Your task to perform on an android device: open app "Google Calendar" (install if not already installed) Image 0: 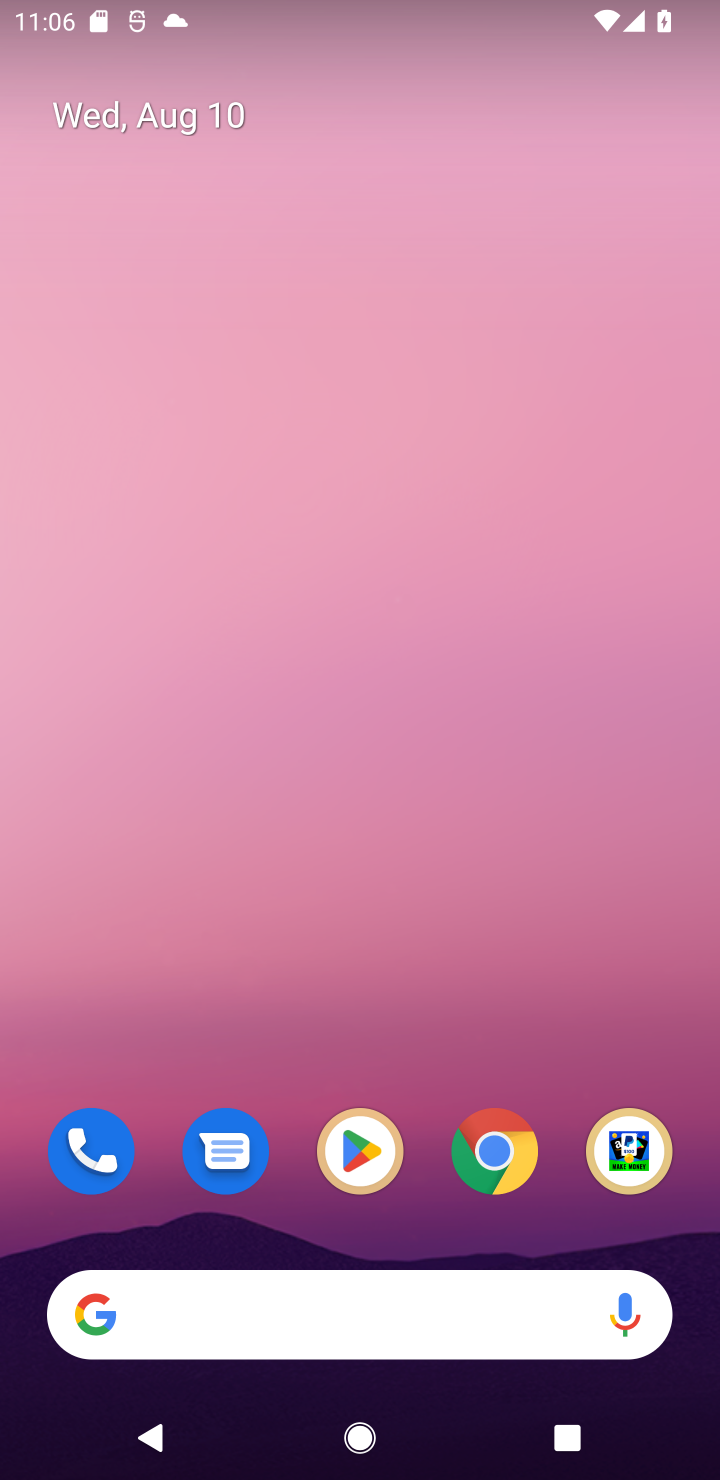
Step 0: press home button
Your task to perform on an android device: open app "Google Calendar" (install if not already installed) Image 1: 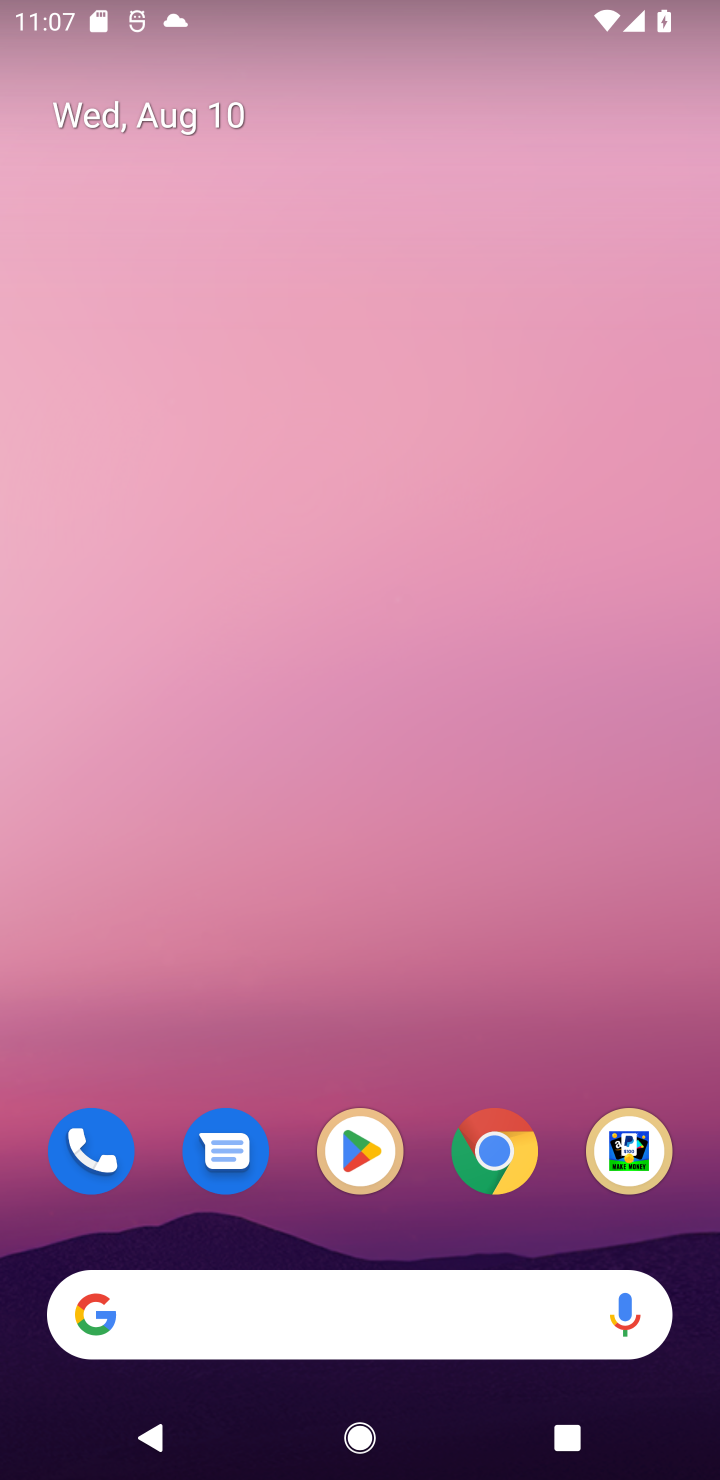
Step 1: drag from (433, 1091) to (423, 171)
Your task to perform on an android device: open app "Google Calendar" (install if not already installed) Image 2: 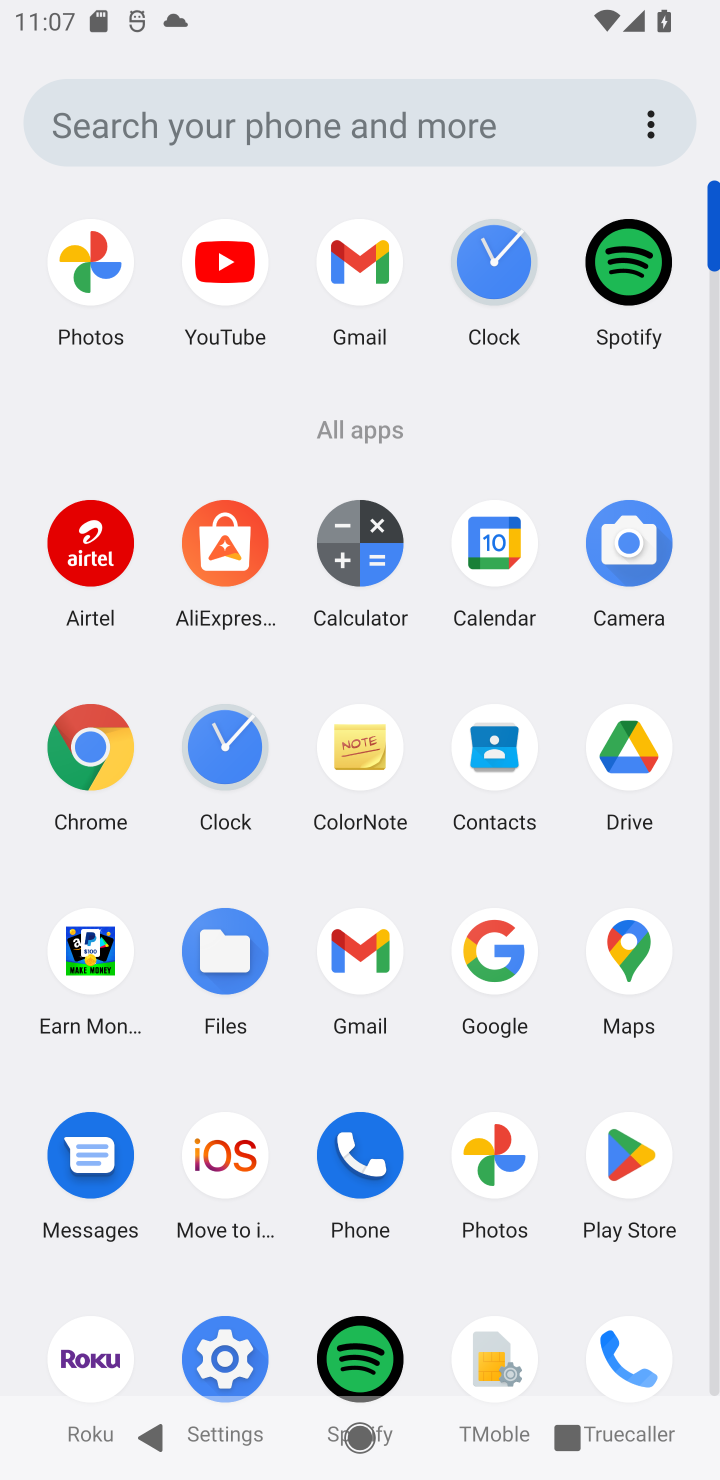
Step 2: click (618, 1147)
Your task to perform on an android device: open app "Google Calendar" (install if not already installed) Image 3: 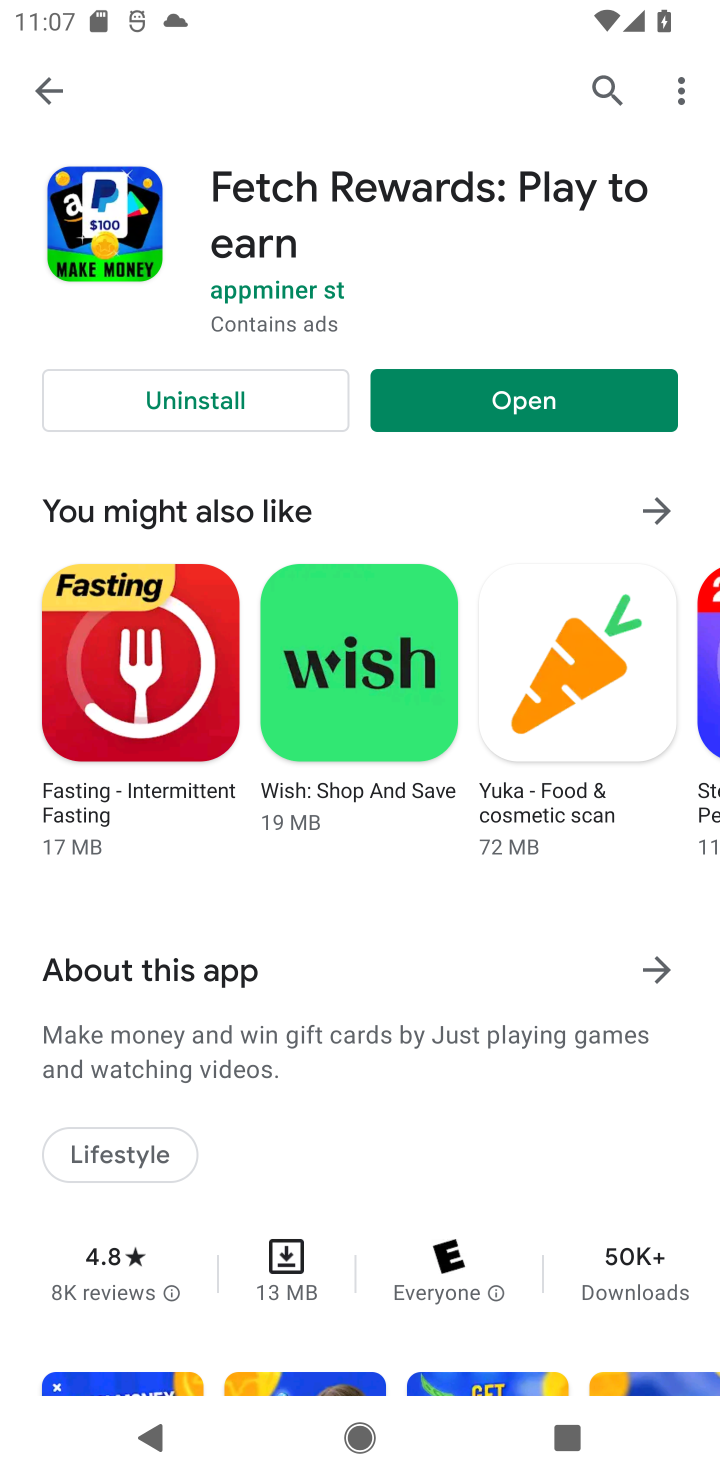
Step 3: click (608, 81)
Your task to perform on an android device: open app "Google Calendar" (install if not already installed) Image 4: 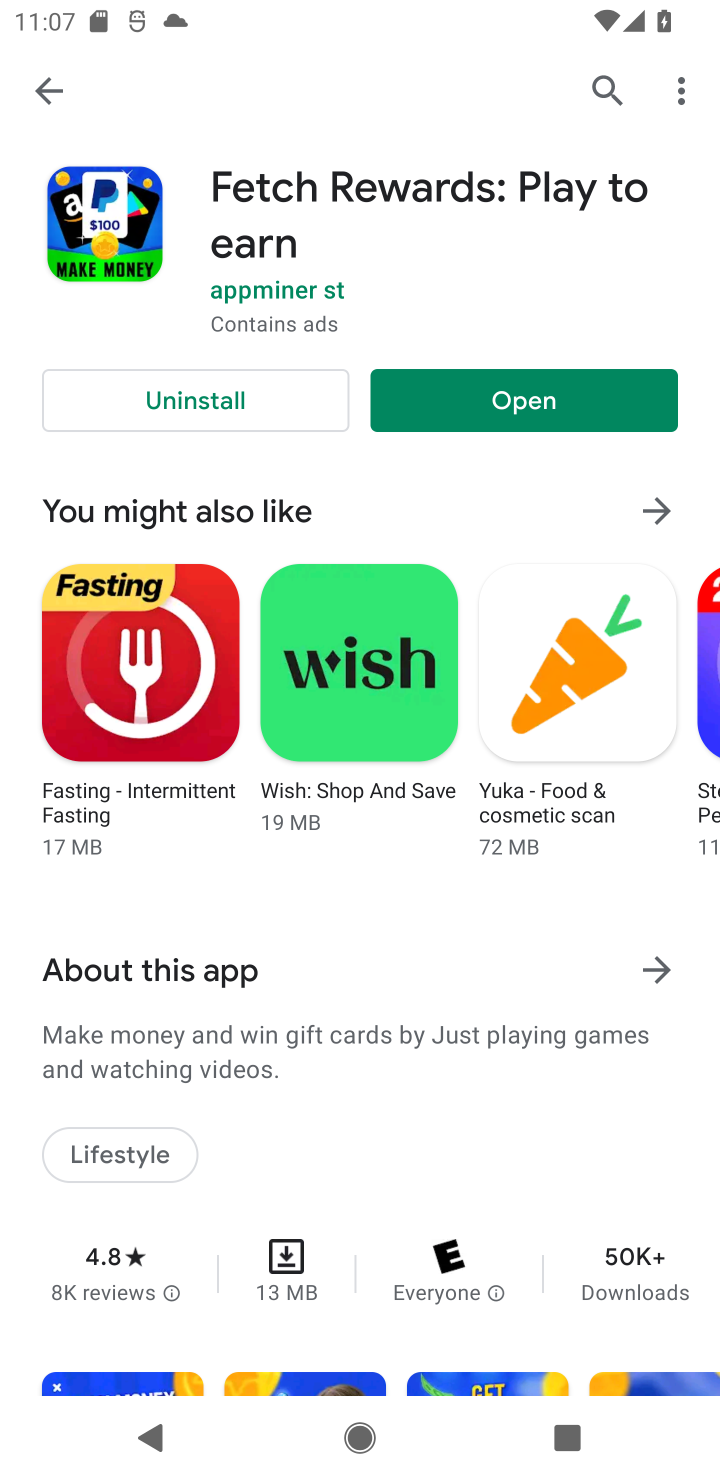
Step 4: click (603, 82)
Your task to perform on an android device: open app "Google Calendar" (install if not already installed) Image 5: 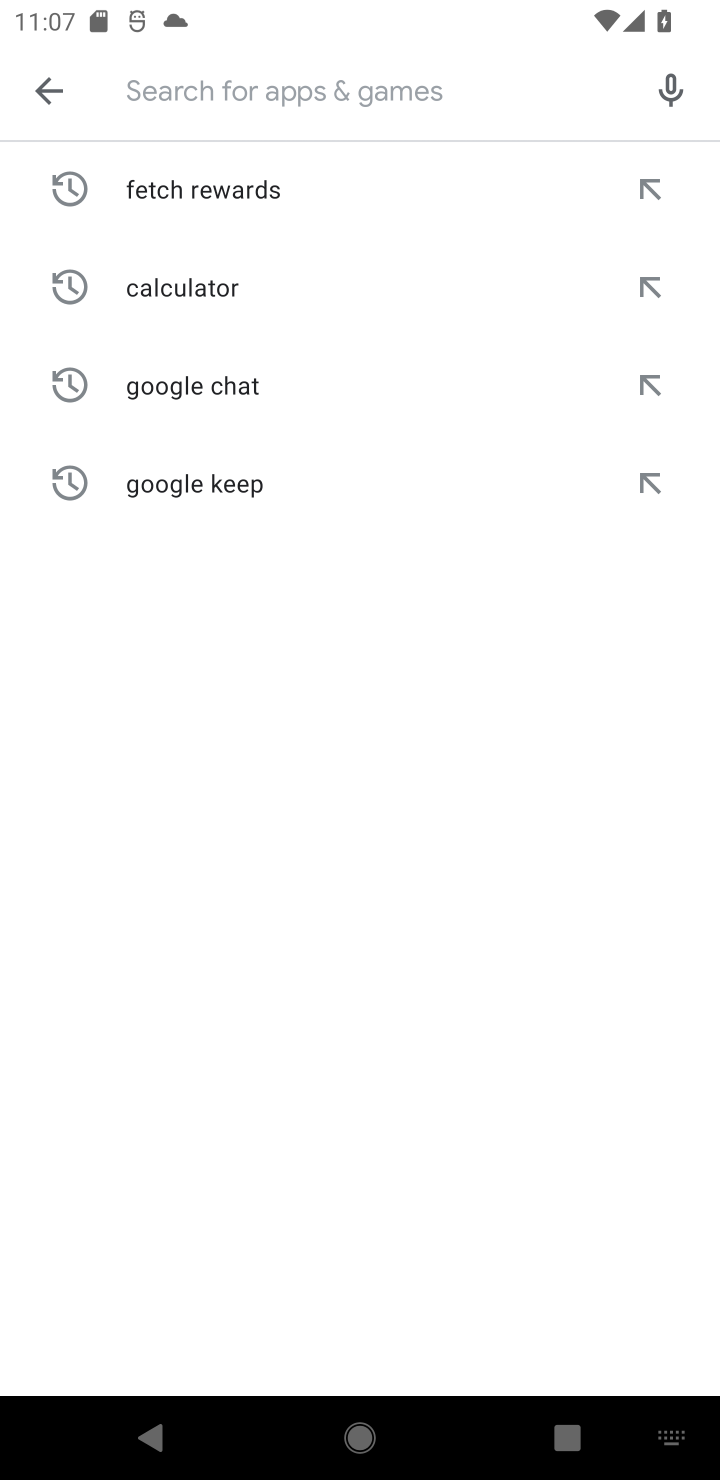
Step 5: type "Google Calendar"
Your task to perform on an android device: open app "Google Calendar" (install if not already installed) Image 6: 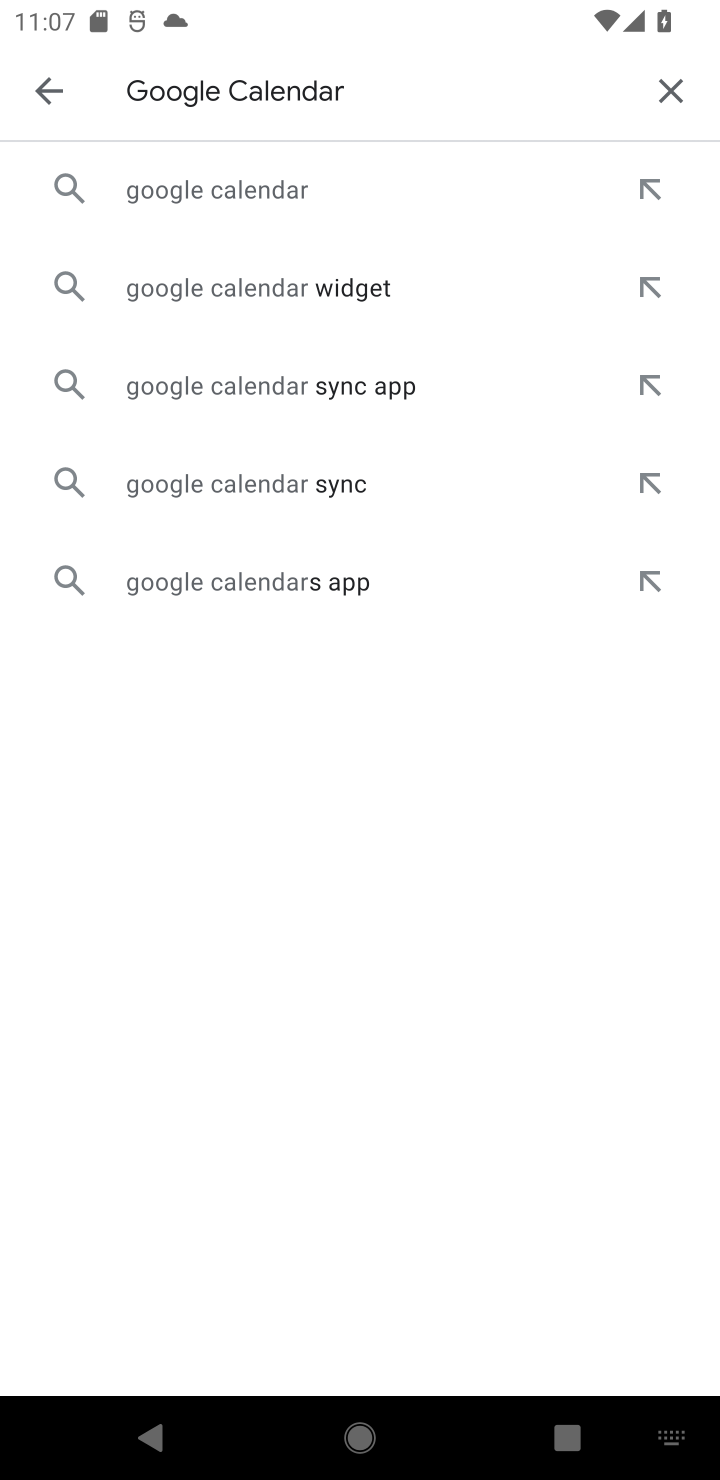
Step 6: click (299, 174)
Your task to perform on an android device: open app "Google Calendar" (install if not already installed) Image 7: 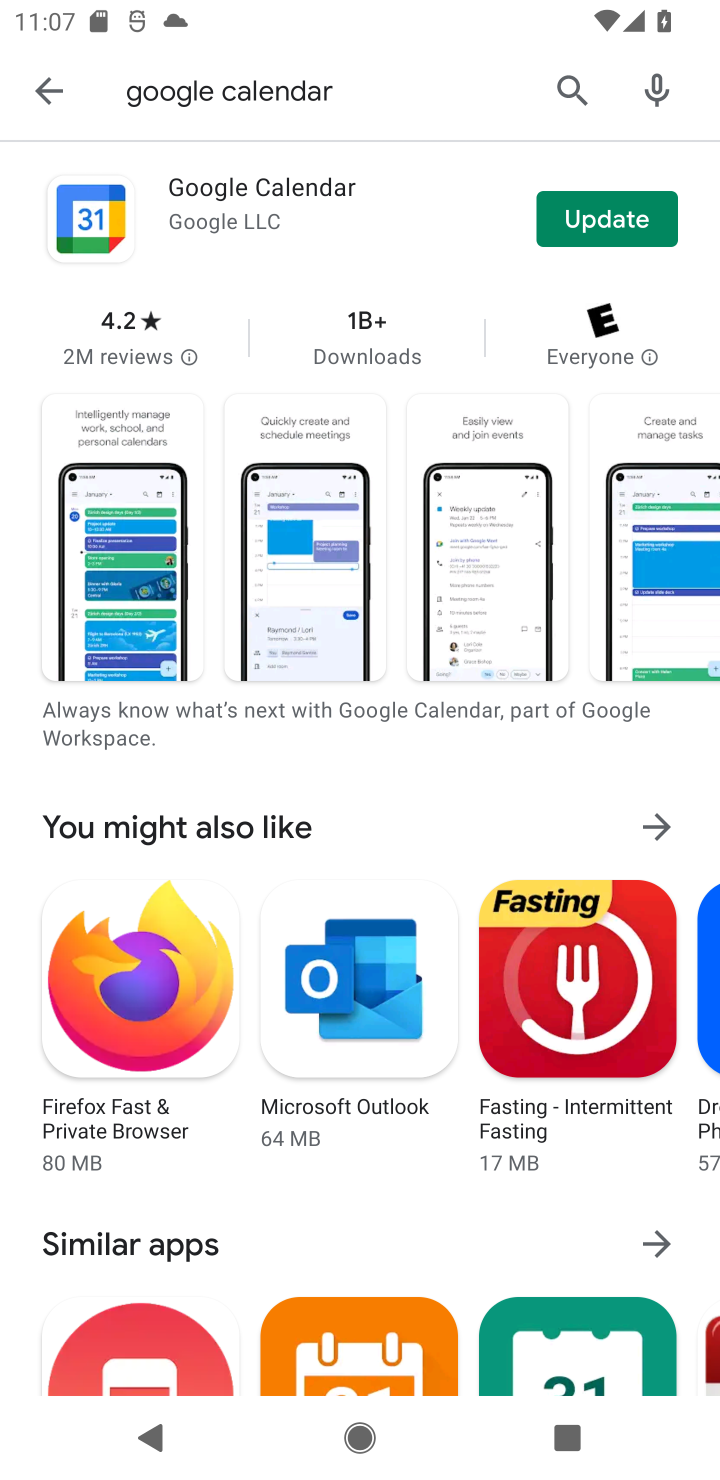
Step 7: click (596, 224)
Your task to perform on an android device: open app "Google Calendar" (install if not already installed) Image 8: 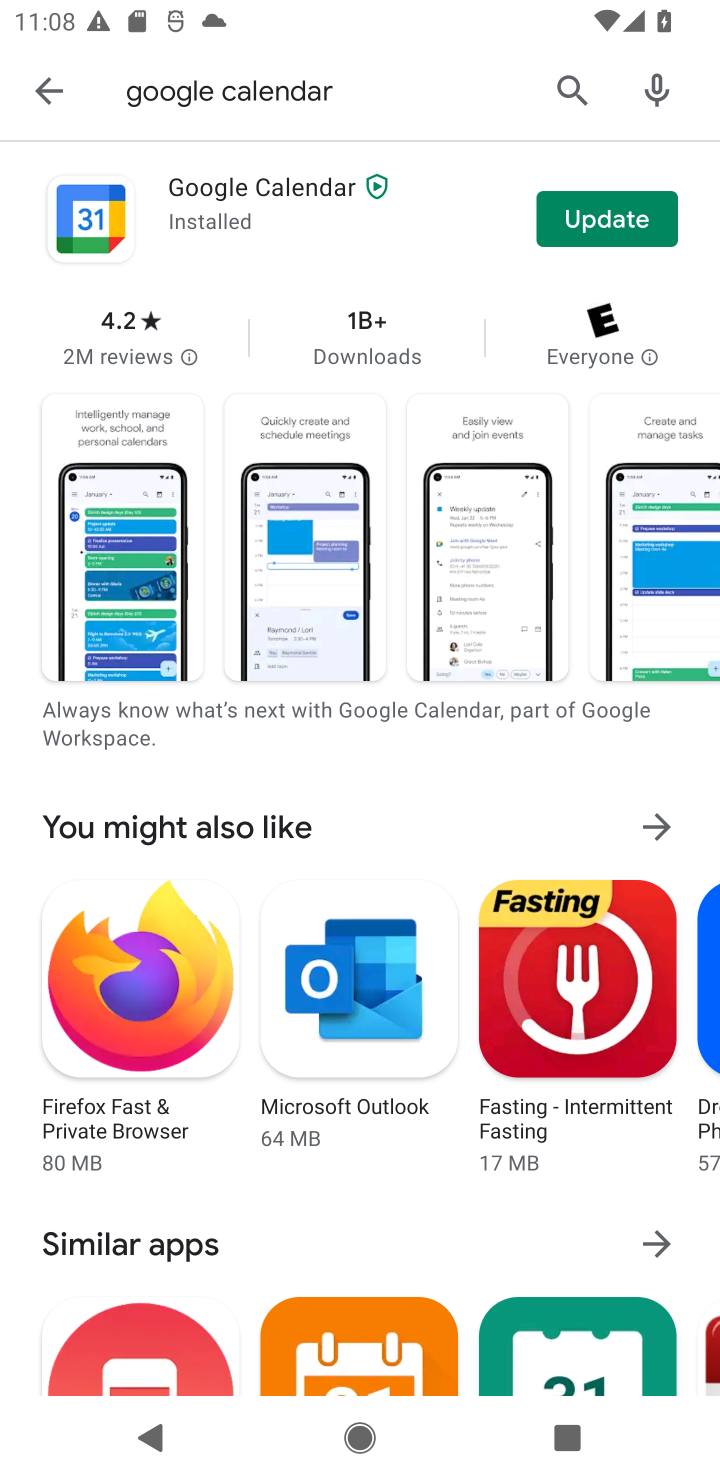
Step 8: click (595, 211)
Your task to perform on an android device: open app "Google Calendar" (install if not already installed) Image 9: 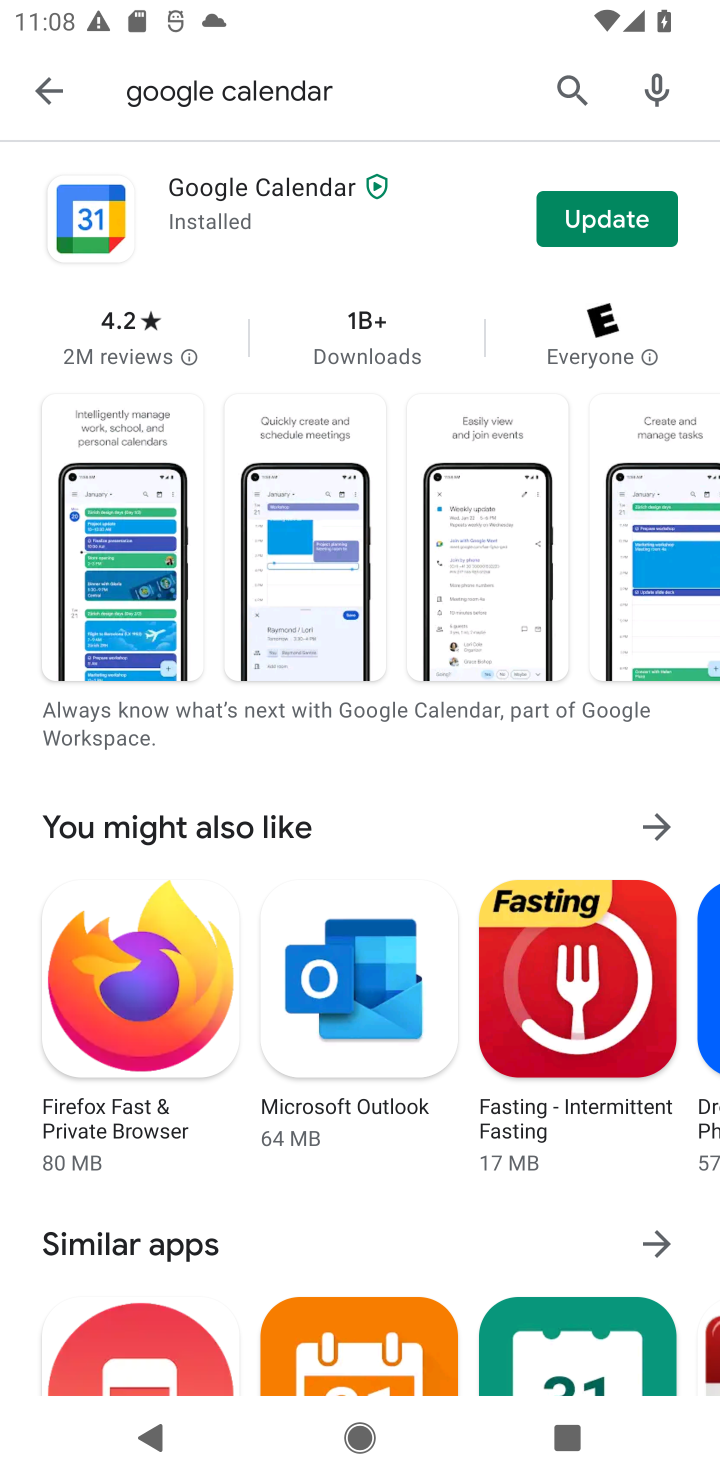
Step 9: task complete